Your task to perform on an android device: Set the phone to "Do not disturb". Image 0: 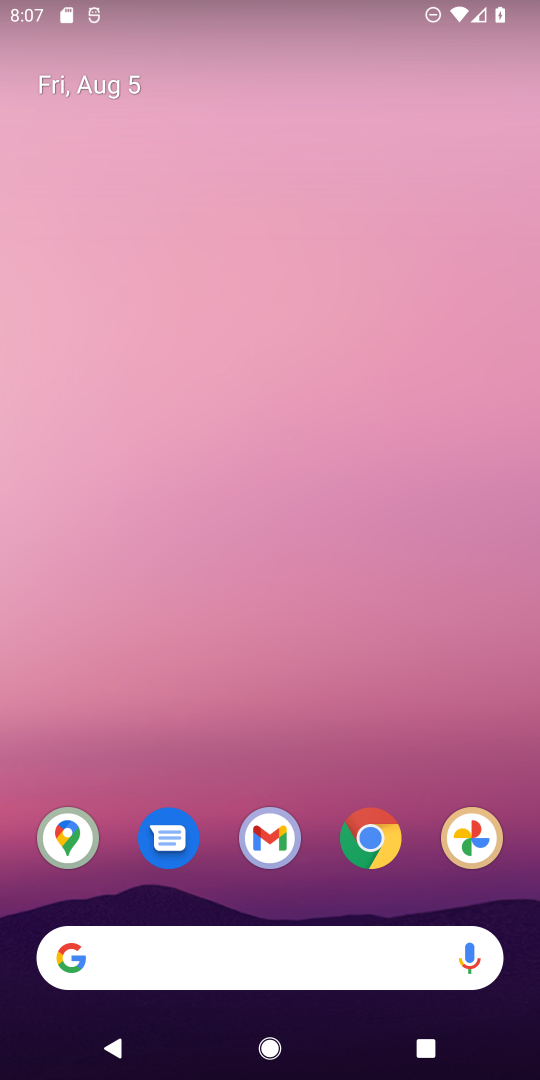
Step 0: drag from (281, 925) to (274, 622)
Your task to perform on an android device: Set the phone to "Do not disturb". Image 1: 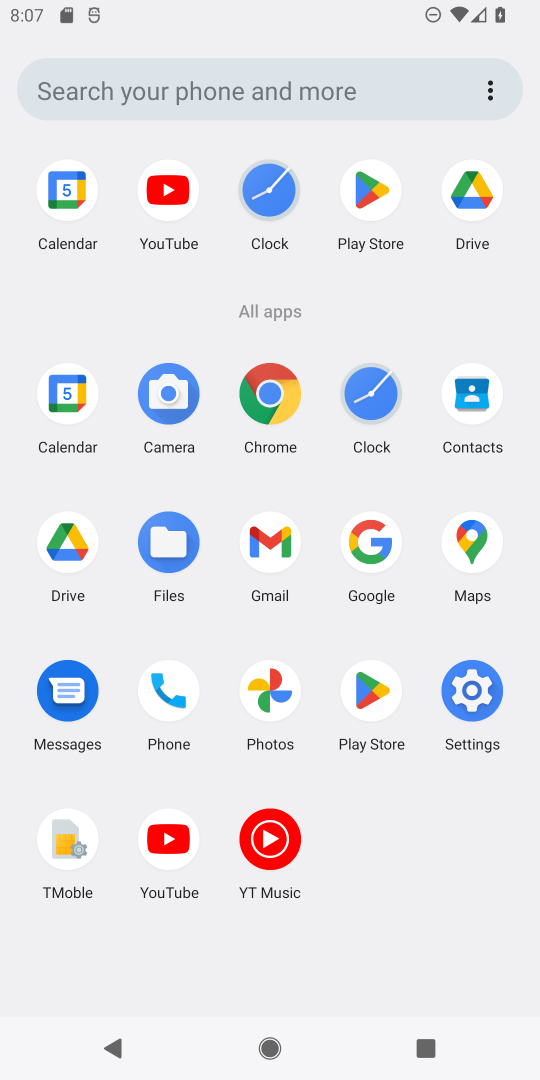
Step 1: click (470, 700)
Your task to perform on an android device: Set the phone to "Do not disturb". Image 2: 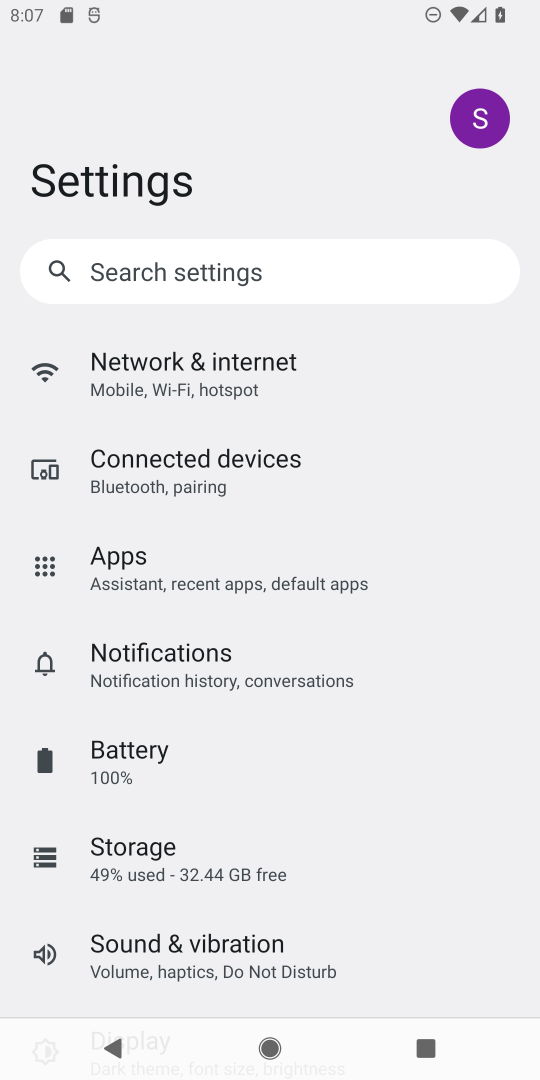
Step 2: click (275, 964)
Your task to perform on an android device: Set the phone to "Do not disturb". Image 3: 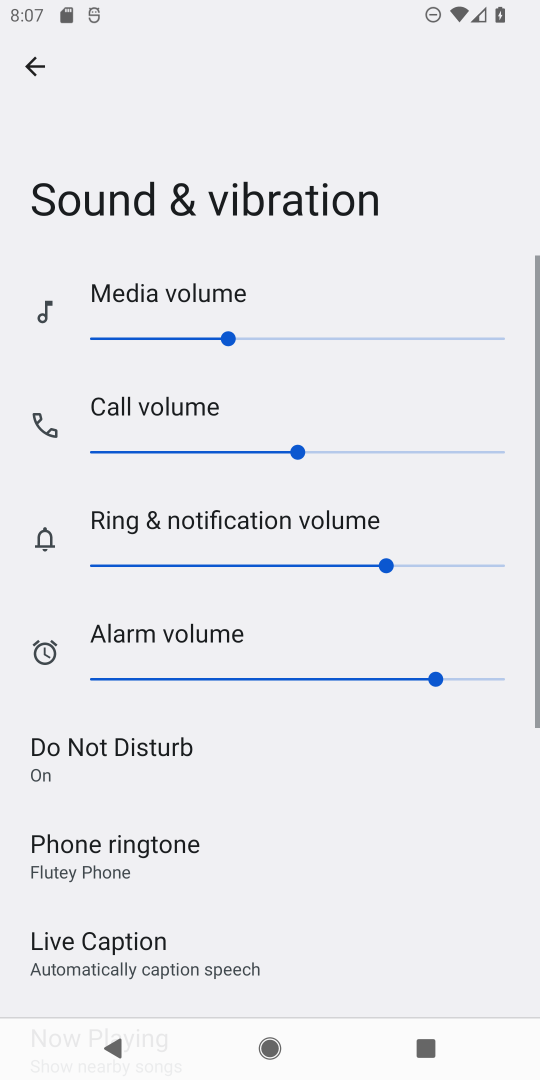
Step 3: click (67, 759)
Your task to perform on an android device: Set the phone to "Do not disturb". Image 4: 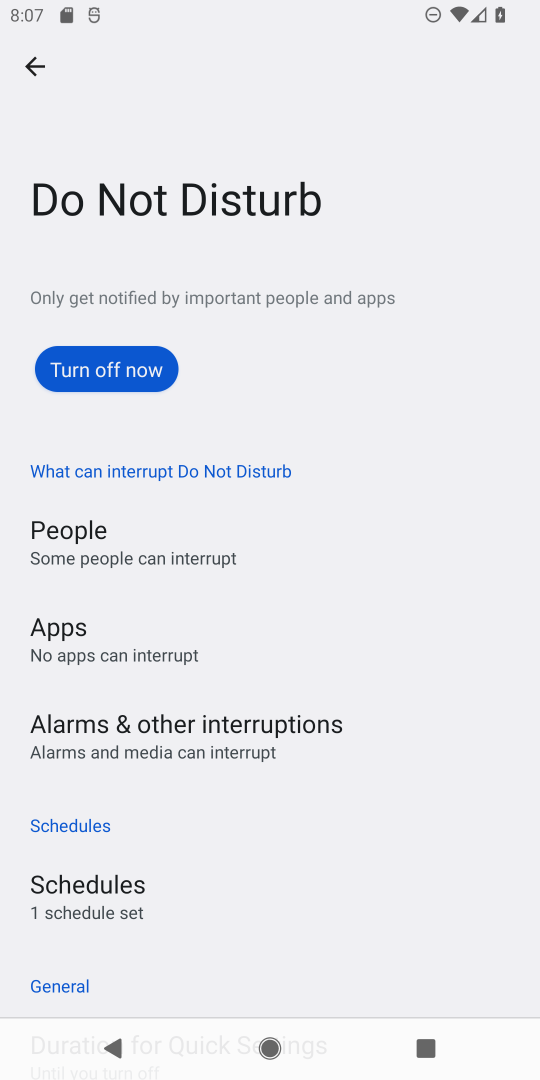
Step 4: task complete